Your task to perform on an android device: Do I have any events tomorrow? Image 0: 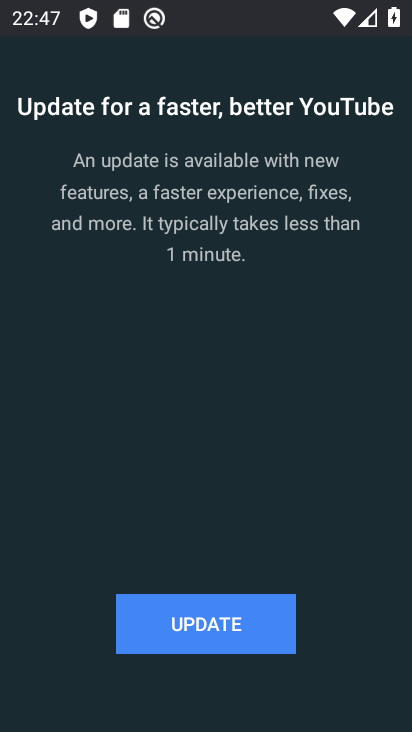
Step 0: press back button
Your task to perform on an android device: Do I have any events tomorrow? Image 1: 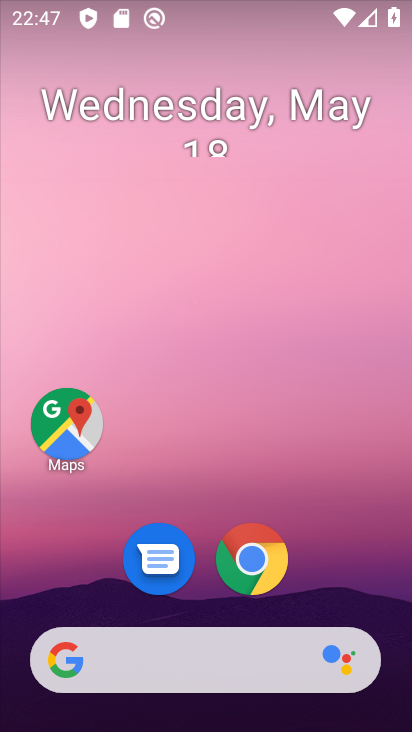
Step 1: drag from (327, 576) to (257, 19)
Your task to perform on an android device: Do I have any events tomorrow? Image 2: 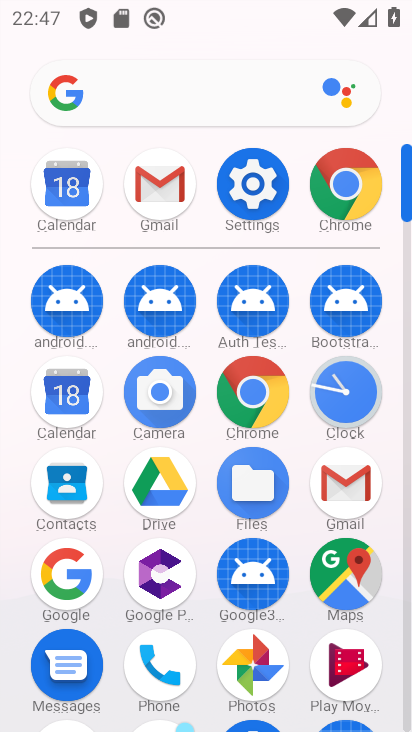
Step 2: click (70, 407)
Your task to perform on an android device: Do I have any events tomorrow? Image 3: 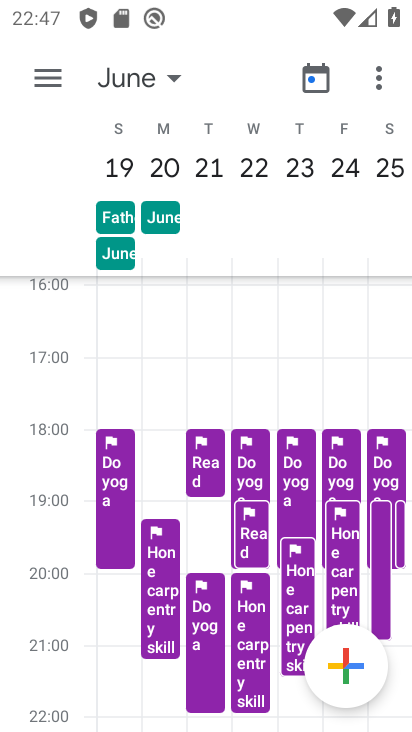
Step 3: click (126, 88)
Your task to perform on an android device: Do I have any events tomorrow? Image 4: 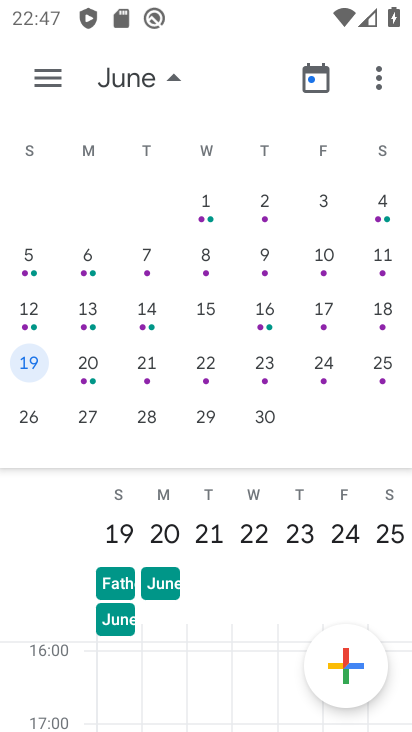
Step 4: click (55, 82)
Your task to perform on an android device: Do I have any events tomorrow? Image 5: 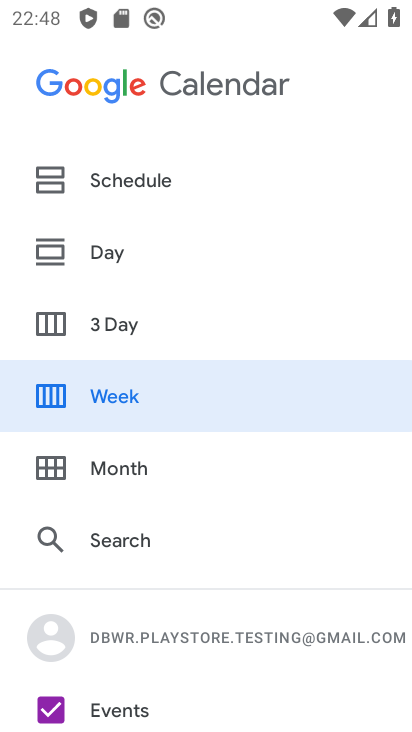
Step 5: click (148, 188)
Your task to perform on an android device: Do I have any events tomorrow? Image 6: 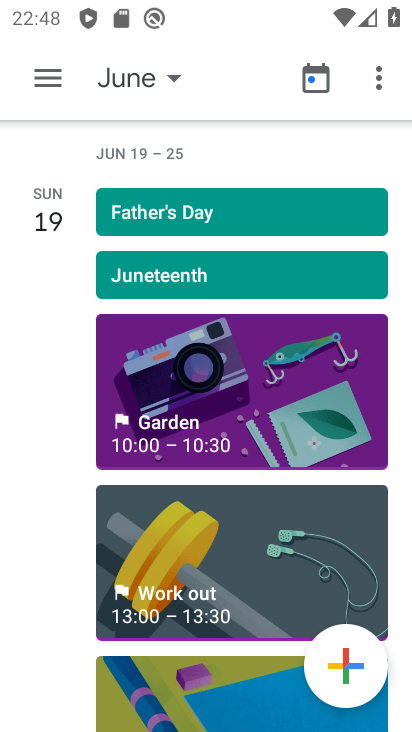
Step 6: click (134, 86)
Your task to perform on an android device: Do I have any events tomorrow? Image 7: 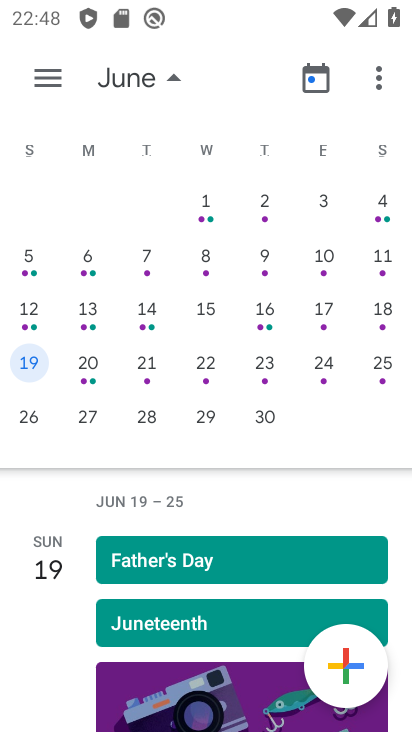
Step 7: drag from (82, 277) to (389, 259)
Your task to perform on an android device: Do I have any events tomorrow? Image 8: 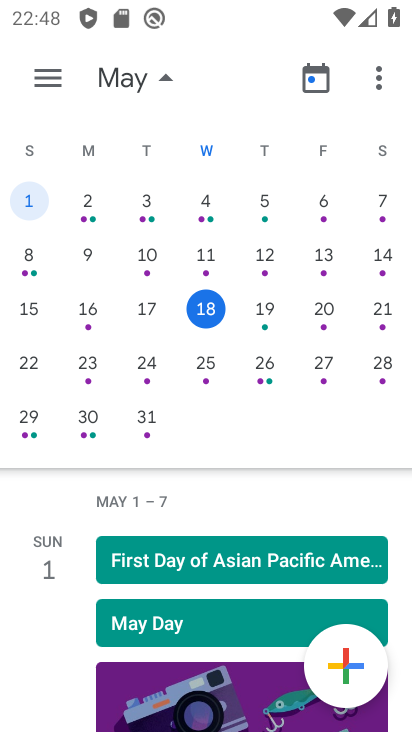
Step 8: click (269, 310)
Your task to perform on an android device: Do I have any events tomorrow? Image 9: 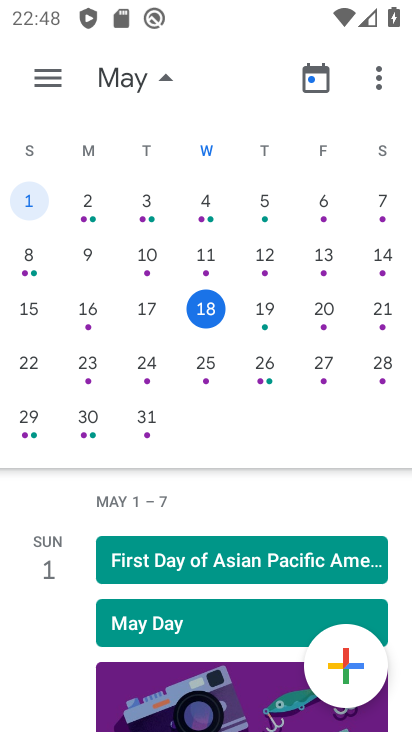
Step 9: click (269, 310)
Your task to perform on an android device: Do I have any events tomorrow? Image 10: 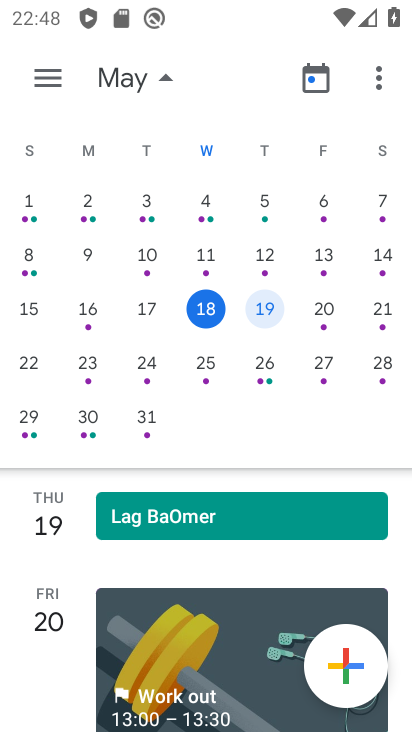
Step 10: task complete